Your task to perform on an android device: Open Android settings Image 0: 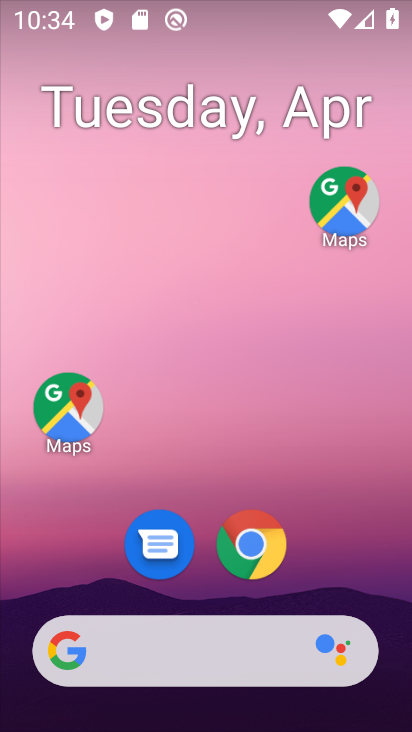
Step 0: press home button
Your task to perform on an android device: Open Android settings Image 1: 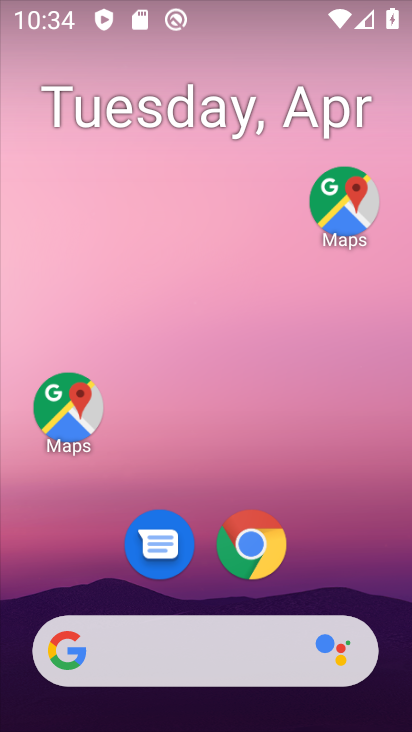
Step 1: drag from (320, 519) to (306, 138)
Your task to perform on an android device: Open Android settings Image 2: 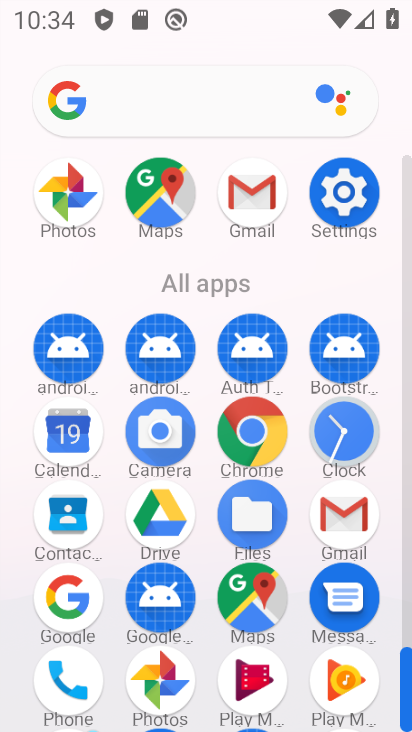
Step 2: drag from (297, 674) to (328, 569)
Your task to perform on an android device: Open Android settings Image 3: 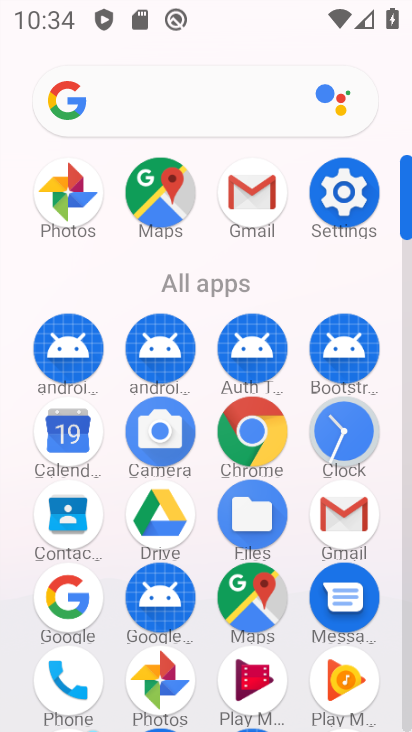
Step 3: click (343, 232)
Your task to perform on an android device: Open Android settings Image 4: 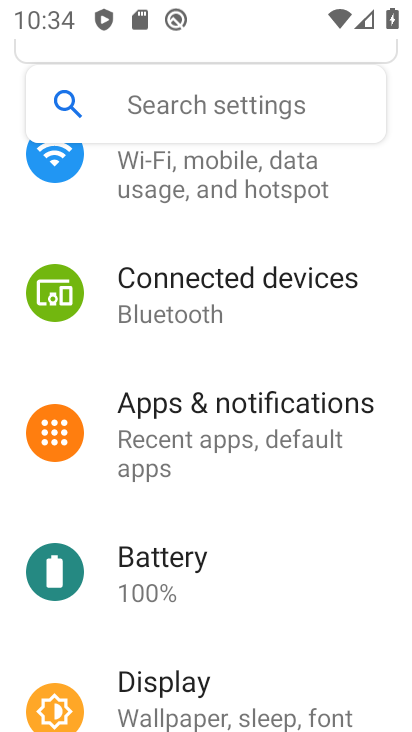
Step 4: drag from (253, 669) to (258, 190)
Your task to perform on an android device: Open Android settings Image 5: 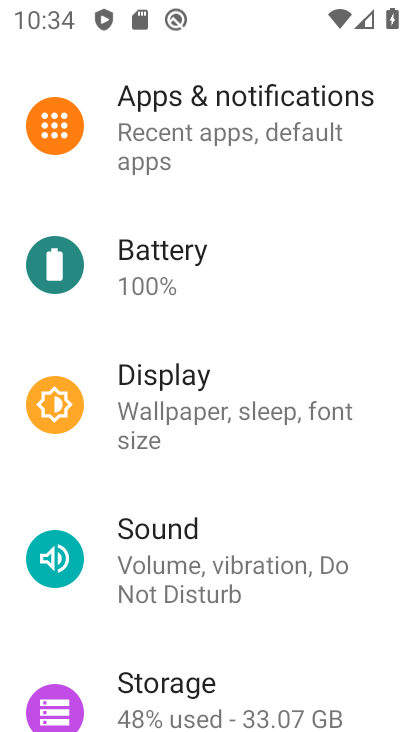
Step 5: drag from (236, 690) to (267, 217)
Your task to perform on an android device: Open Android settings Image 6: 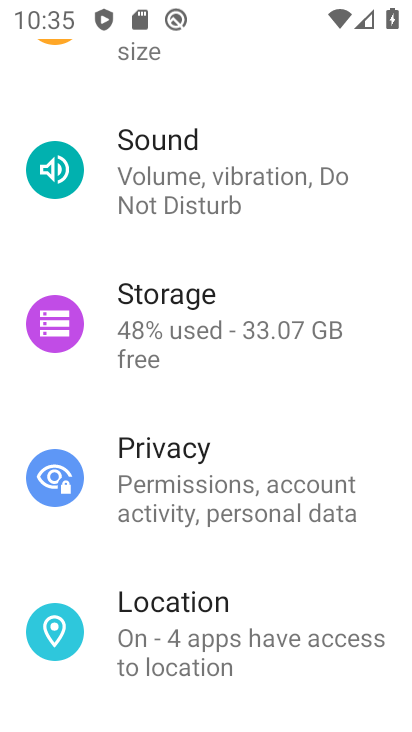
Step 6: drag from (272, 667) to (282, 159)
Your task to perform on an android device: Open Android settings Image 7: 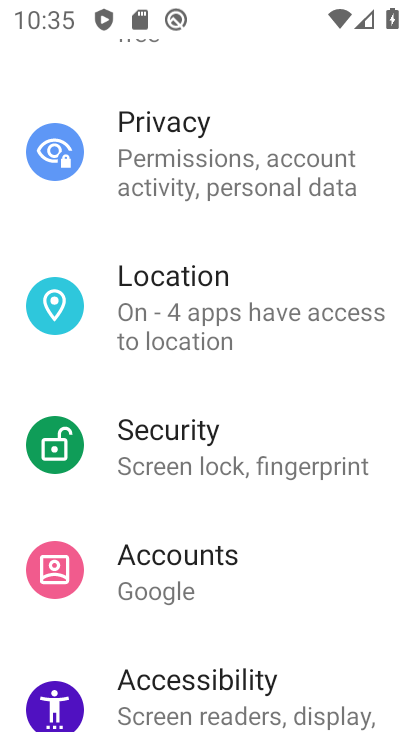
Step 7: drag from (258, 648) to (323, 228)
Your task to perform on an android device: Open Android settings Image 8: 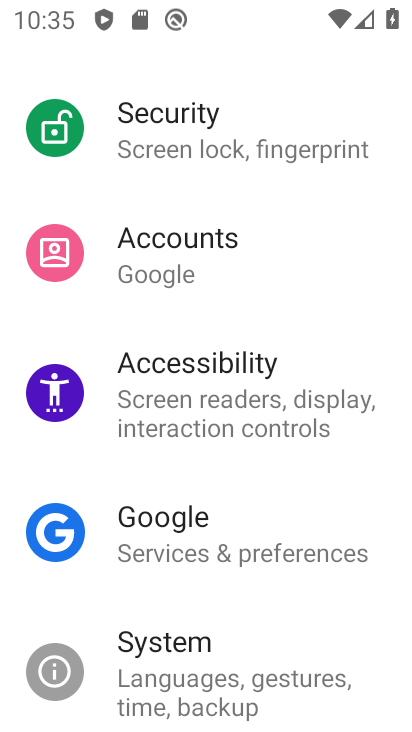
Step 8: drag from (256, 690) to (304, 255)
Your task to perform on an android device: Open Android settings Image 9: 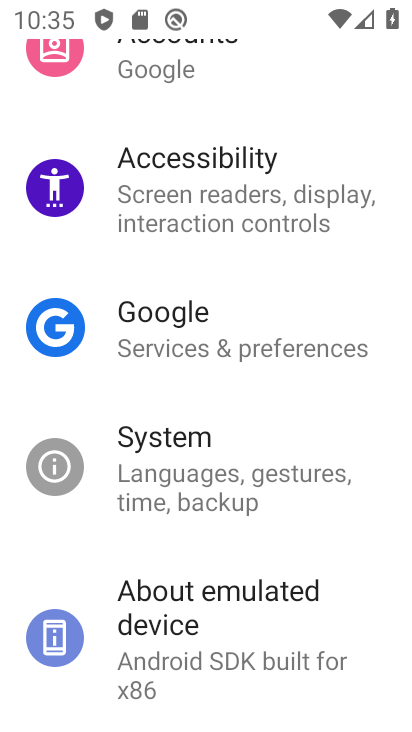
Step 9: click (264, 678)
Your task to perform on an android device: Open Android settings Image 10: 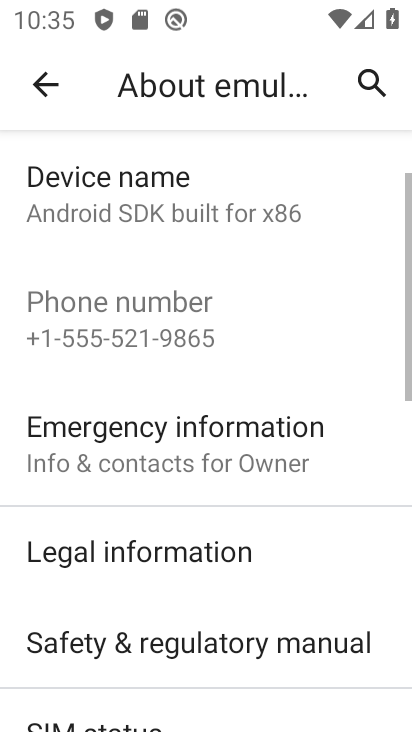
Step 10: drag from (279, 655) to (290, 186)
Your task to perform on an android device: Open Android settings Image 11: 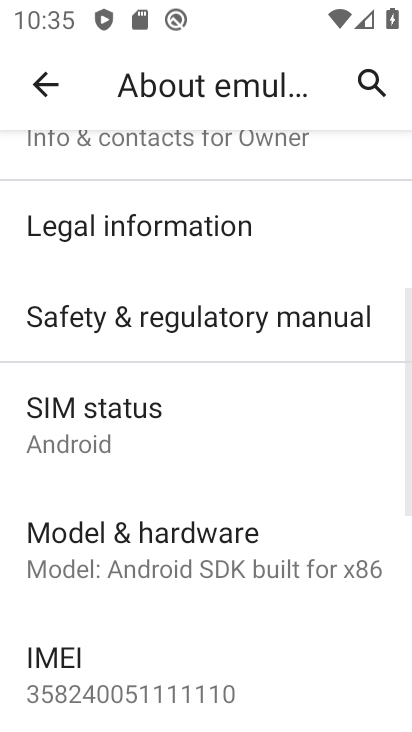
Step 11: drag from (243, 671) to (249, 218)
Your task to perform on an android device: Open Android settings Image 12: 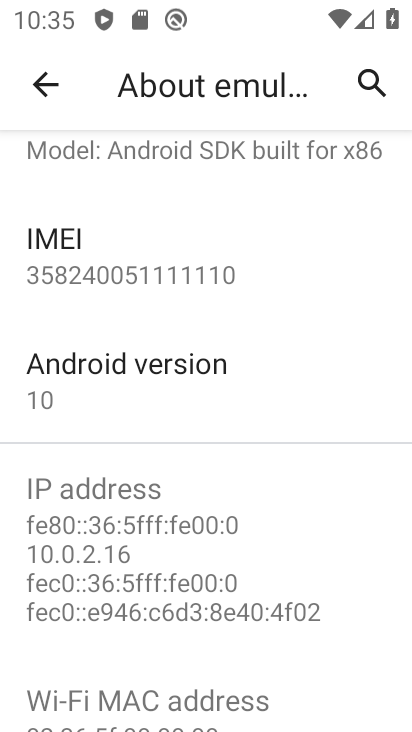
Step 12: drag from (250, 617) to (257, 218)
Your task to perform on an android device: Open Android settings Image 13: 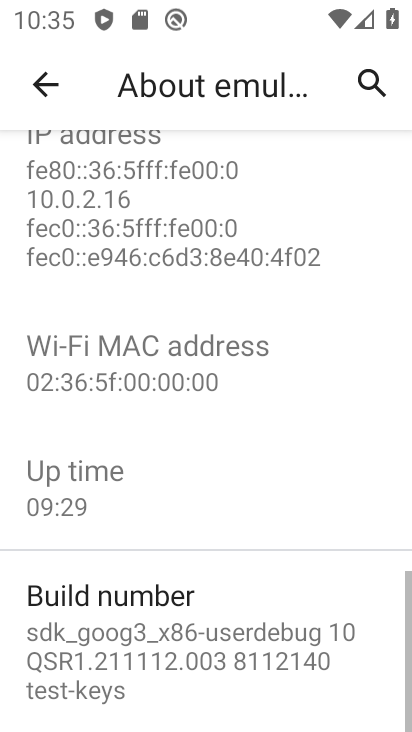
Step 13: drag from (285, 177) to (227, 630)
Your task to perform on an android device: Open Android settings Image 14: 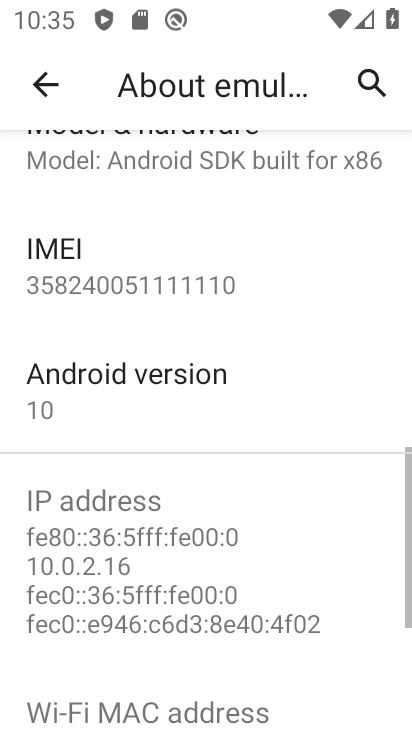
Step 14: click (150, 391)
Your task to perform on an android device: Open Android settings Image 15: 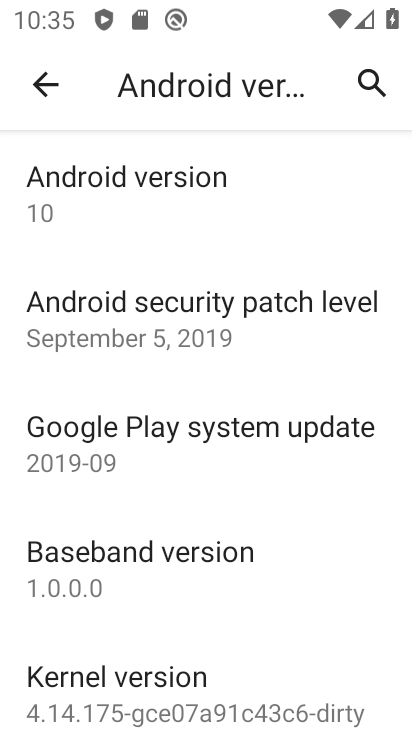
Step 15: task complete